Your task to perform on an android device: Go to accessibility settings Image 0: 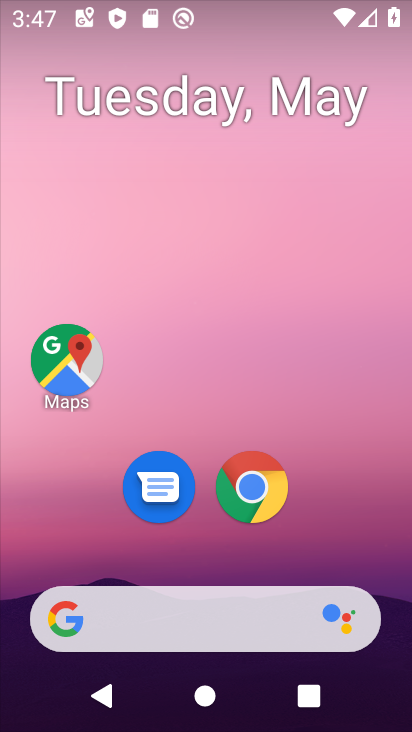
Step 0: drag from (197, 582) to (255, 86)
Your task to perform on an android device: Go to accessibility settings Image 1: 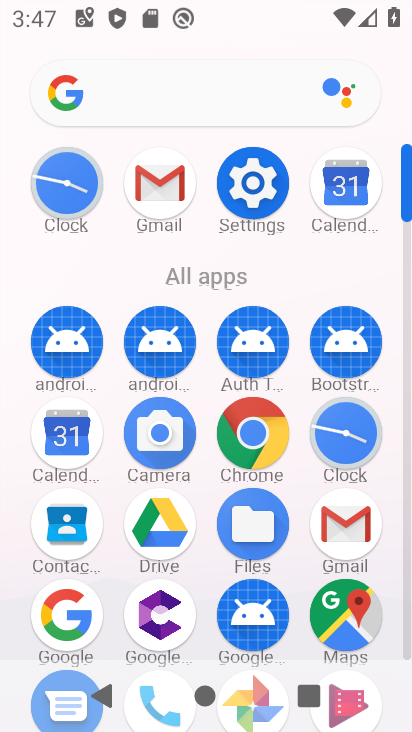
Step 1: click (250, 197)
Your task to perform on an android device: Go to accessibility settings Image 2: 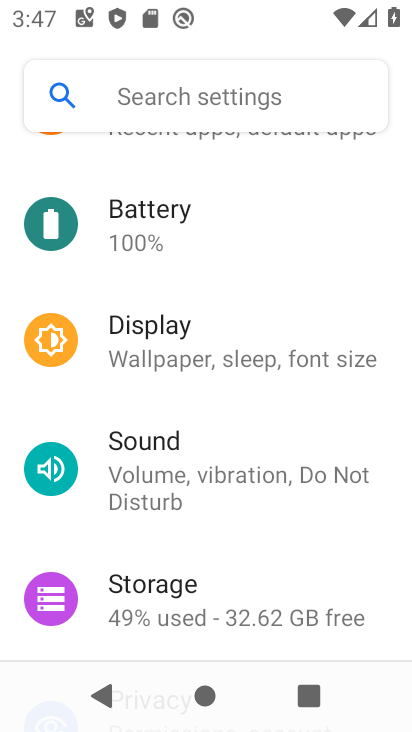
Step 2: drag from (225, 520) to (272, 344)
Your task to perform on an android device: Go to accessibility settings Image 3: 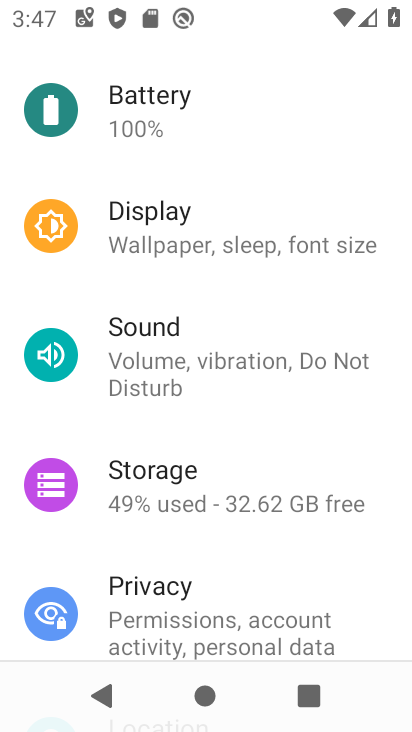
Step 3: drag from (229, 570) to (310, 200)
Your task to perform on an android device: Go to accessibility settings Image 4: 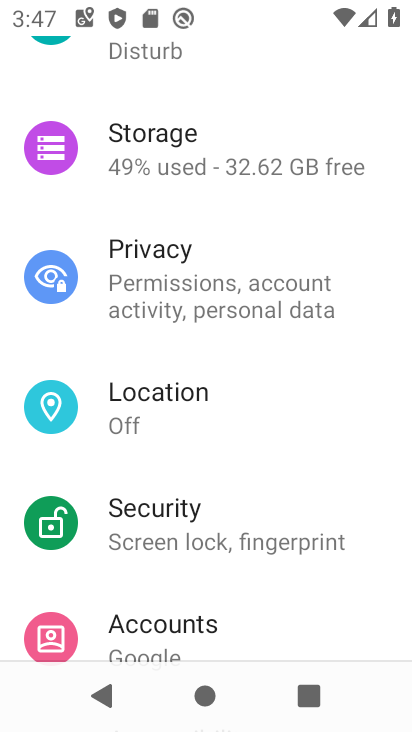
Step 4: drag from (178, 607) to (195, 258)
Your task to perform on an android device: Go to accessibility settings Image 5: 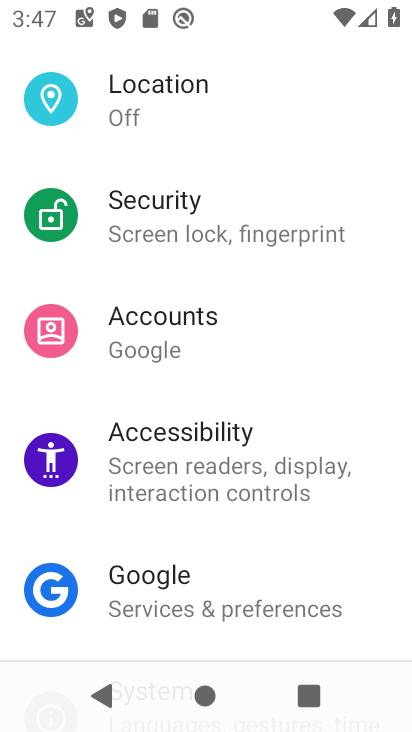
Step 5: click (194, 469)
Your task to perform on an android device: Go to accessibility settings Image 6: 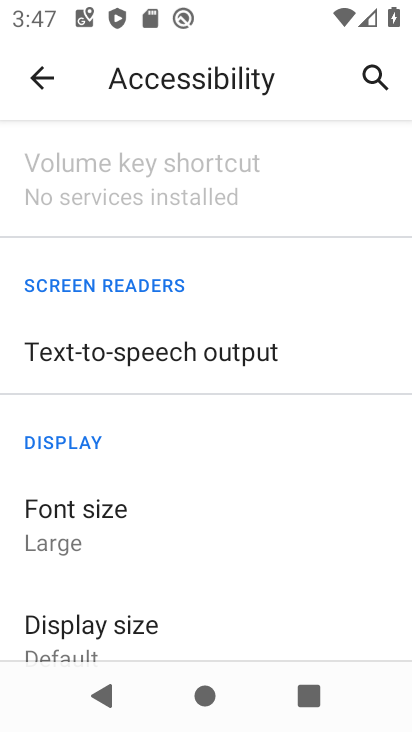
Step 6: task complete